Your task to perform on an android device: Open Google Maps and go to "Timeline" Image 0: 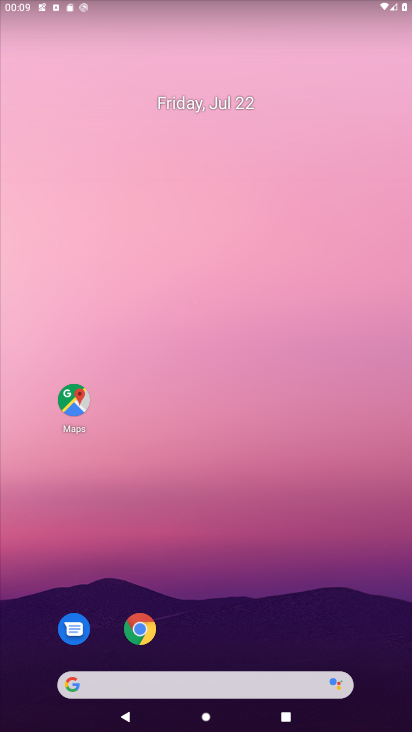
Step 0: drag from (274, 577) to (289, 90)
Your task to perform on an android device: Open Google Maps and go to "Timeline" Image 1: 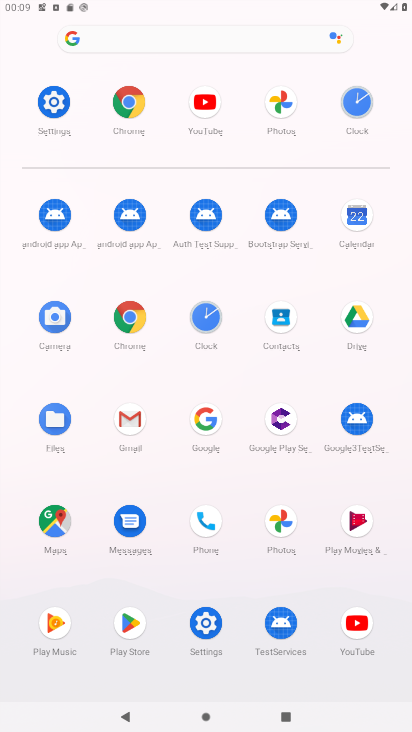
Step 1: click (59, 536)
Your task to perform on an android device: Open Google Maps and go to "Timeline" Image 2: 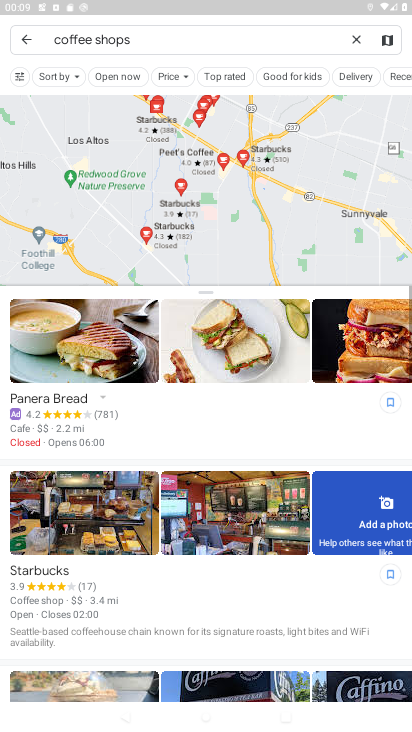
Step 2: click (359, 41)
Your task to perform on an android device: Open Google Maps and go to "Timeline" Image 3: 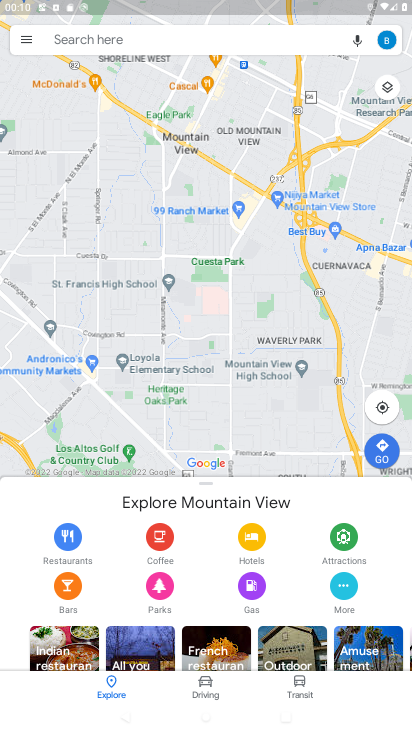
Step 3: click (26, 46)
Your task to perform on an android device: Open Google Maps and go to "Timeline" Image 4: 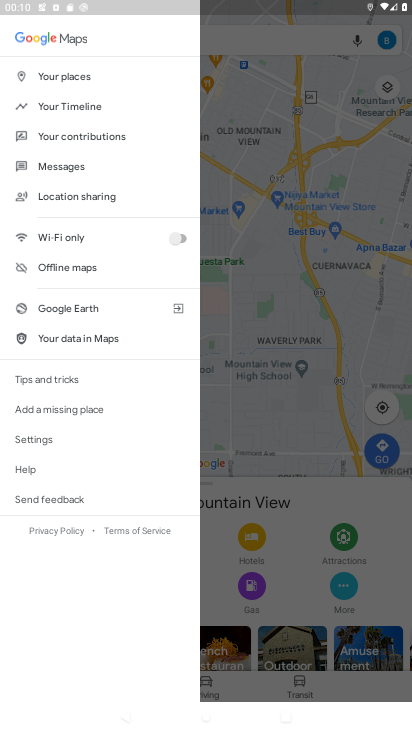
Step 4: click (97, 105)
Your task to perform on an android device: Open Google Maps and go to "Timeline" Image 5: 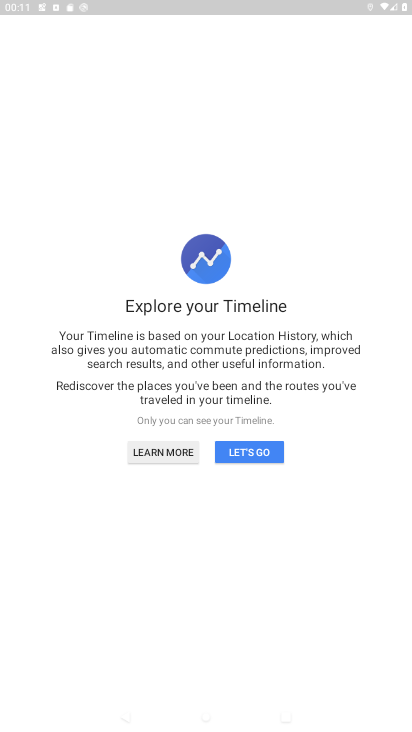
Step 5: task complete